Your task to perform on an android device: change the clock display to show seconds Image 0: 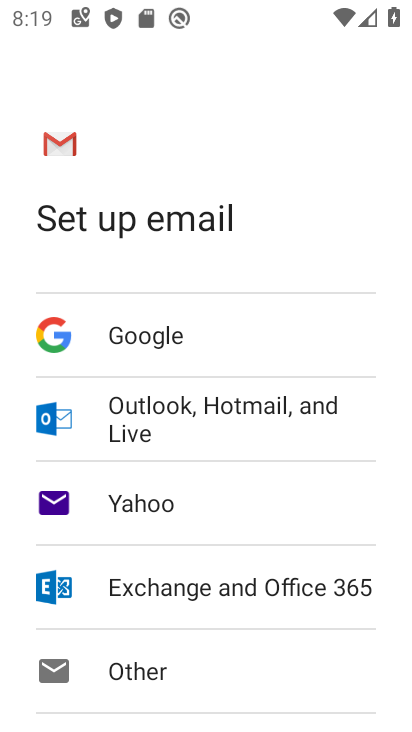
Step 0: press home button
Your task to perform on an android device: change the clock display to show seconds Image 1: 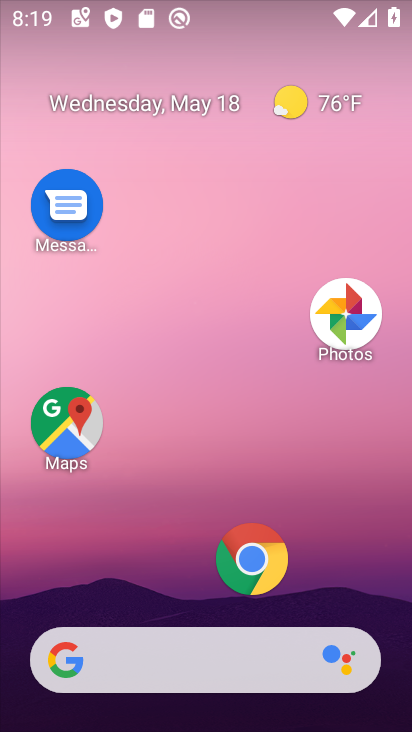
Step 1: drag from (223, 608) to (161, 110)
Your task to perform on an android device: change the clock display to show seconds Image 2: 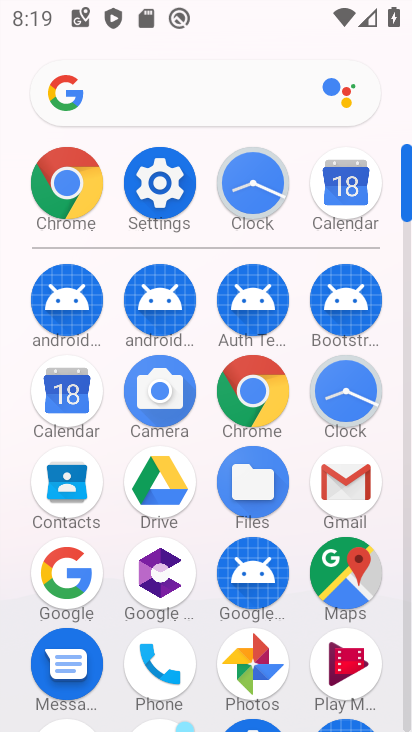
Step 2: click (326, 409)
Your task to perform on an android device: change the clock display to show seconds Image 3: 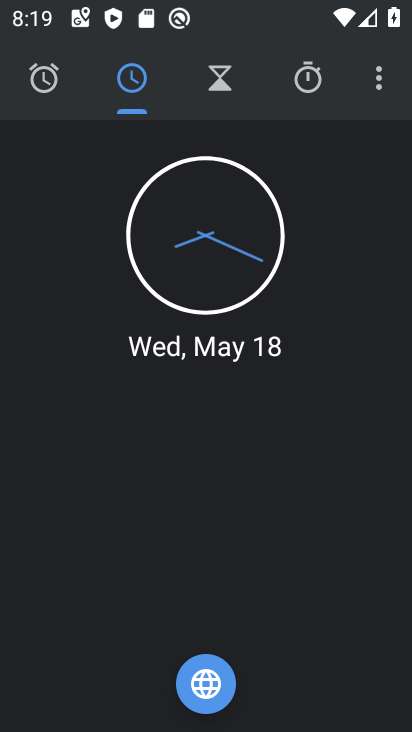
Step 3: click (378, 93)
Your task to perform on an android device: change the clock display to show seconds Image 4: 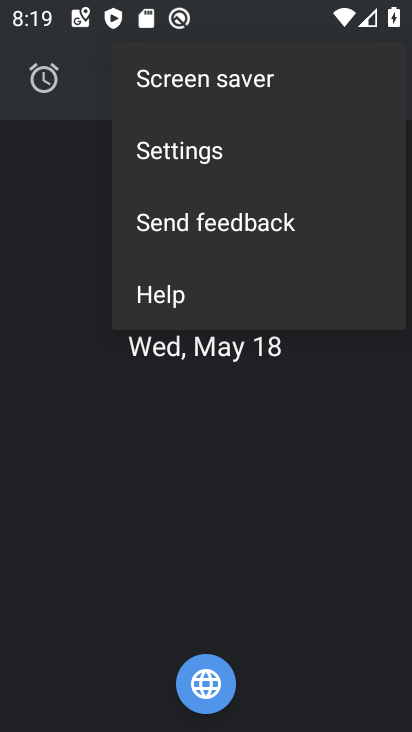
Step 4: click (214, 147)
Your task to perform on an android device: change the clock display to show seconds Image 5: 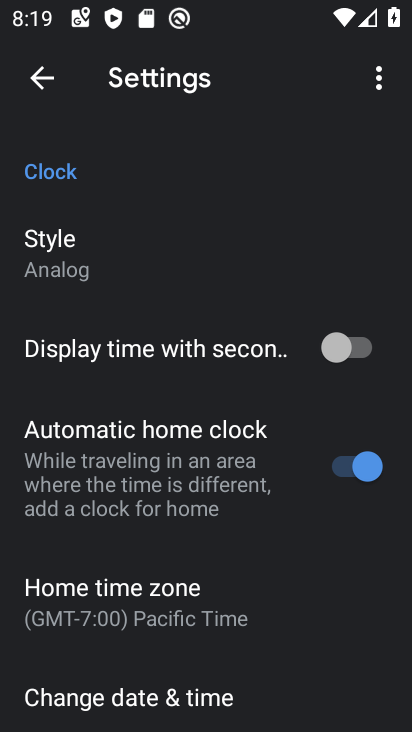
Step 5: click (347, 350)
Your task to perform on an android device: change the clock display to show seconds Image 6: 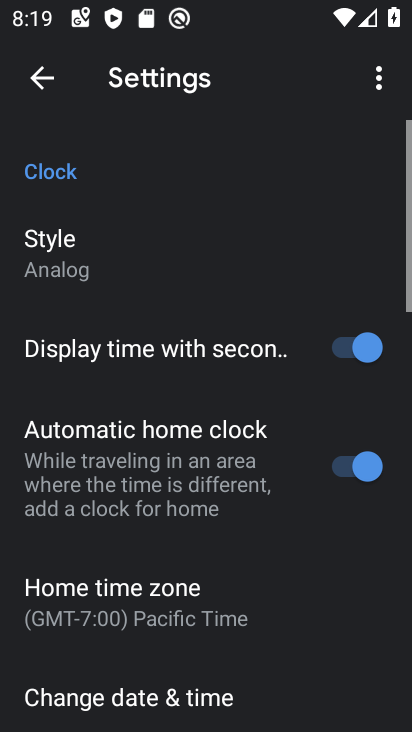
Step 6: task complete